Your task to perform on an android device: manage bookmarks in the chrome app Image 0: 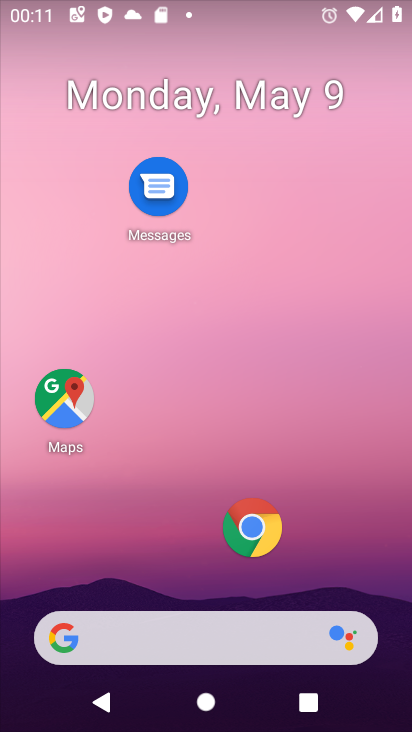
Step 0: click (249, 532)
Your task to perform on an android device: manage bookmarks in the chrome app Image 1: 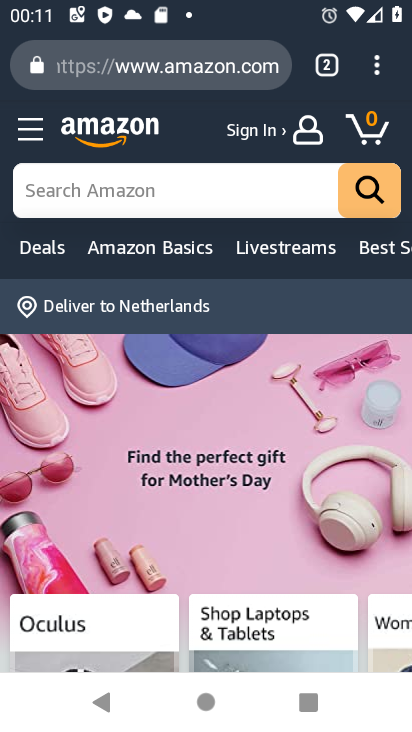
Step 1: click (373, 65)
Your task to perform on an android device: manage bookmarks in the chrome app Image 2: 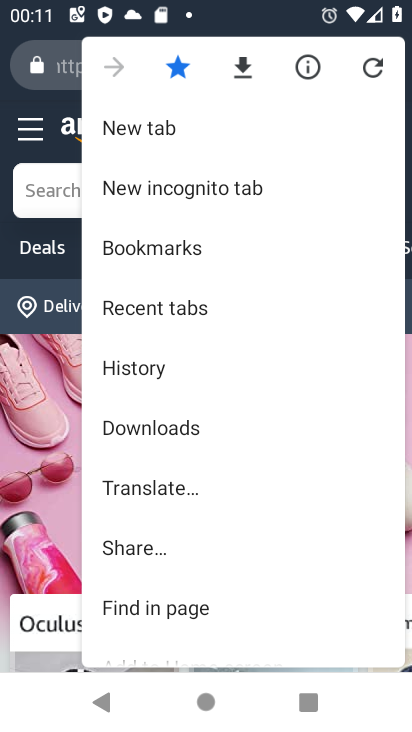
Step 2: click (155, 241)
Your task to perform on an android device: manage bookmarks in the chrome app Image 3: 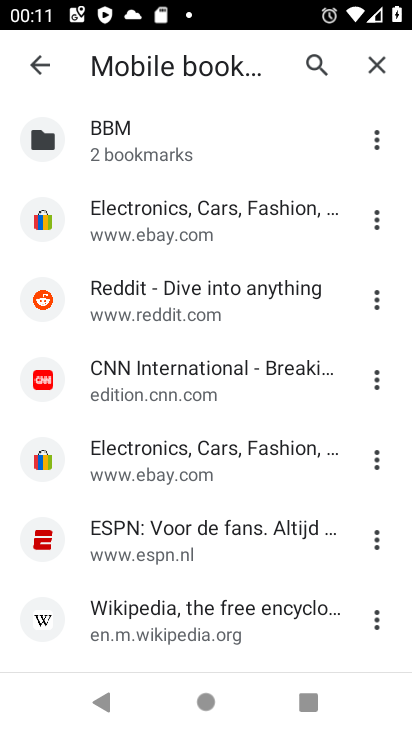
Step 3: click (370, 218)
Your task to perform on an android device: manage bookmarks in the chrome app Image 4: 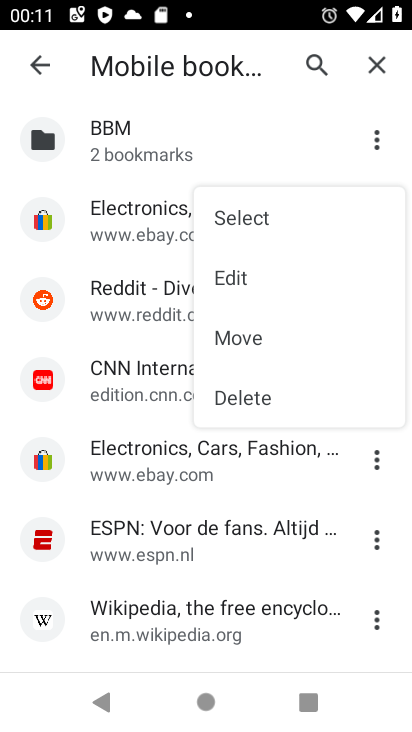
Step 4: click (255, 398)
Your task to perform on an android device: manage bookmarks in the chrome app Image 5: 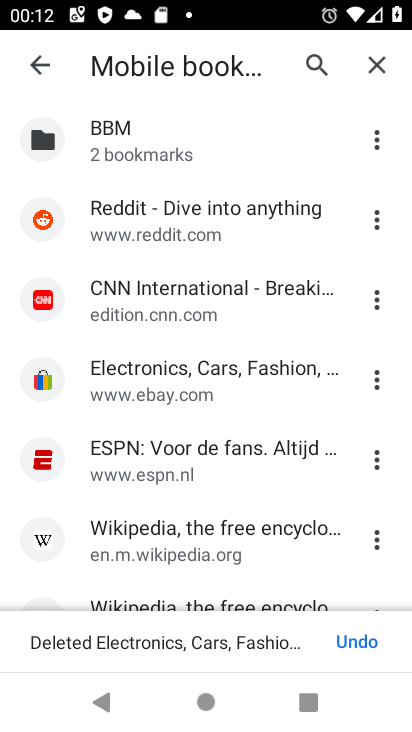
Step 5: task complete